Your task to perform on an android device: What's the weather going to be tomorrow? Image 0: 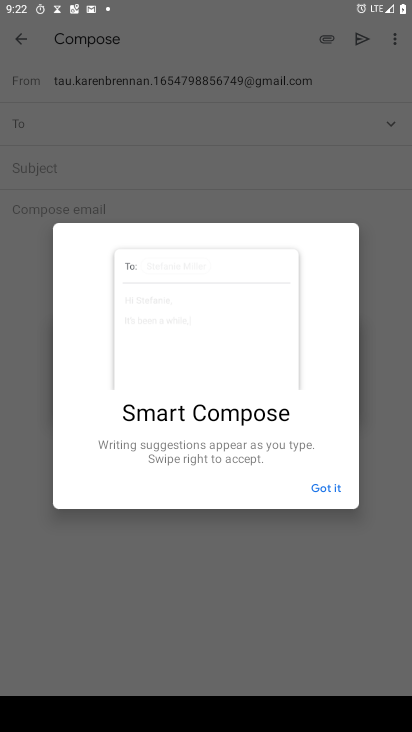
Step 0: press home button
Your task to perform on an android device: What's the weather going to be tomorrow? Image 1: 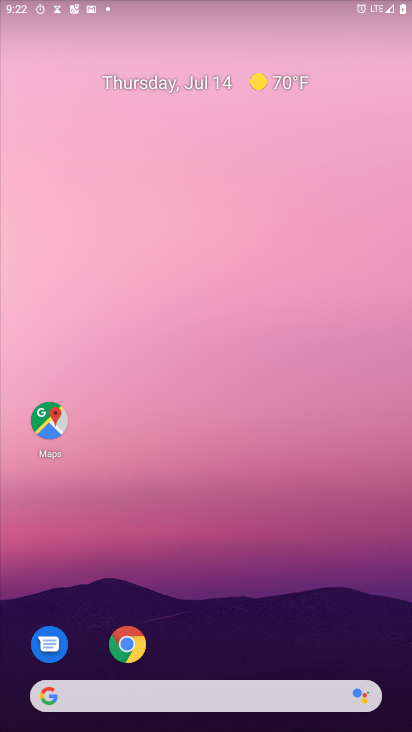
Step 1: click (144, 685)
Your task to perform on an android device: What's the weather going to be tomorrow? Image 2: 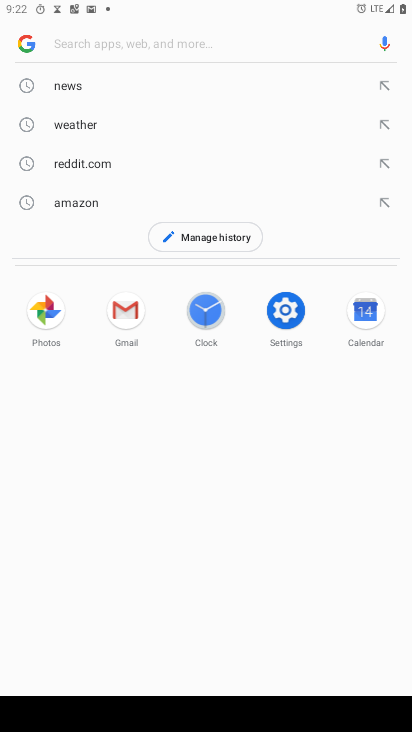
Step 2: click (82, 130)
Your task to perform on an android device: What's the weather going to be tomorrow? Image 3: 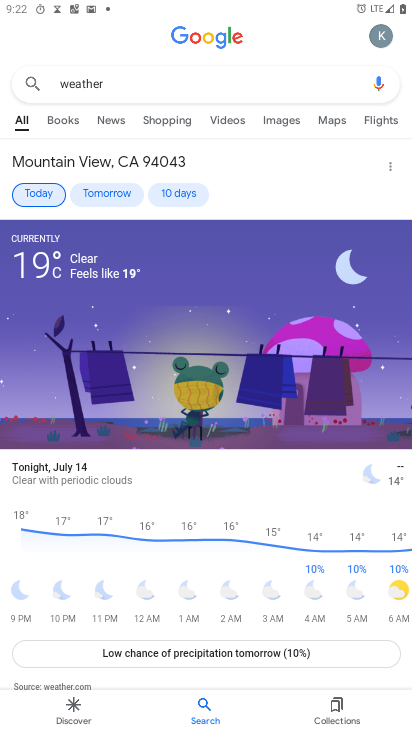
Step 3: click (127, 193)
Your task to perform on an android device: What's the weather going to be tomorrow? Image 4: 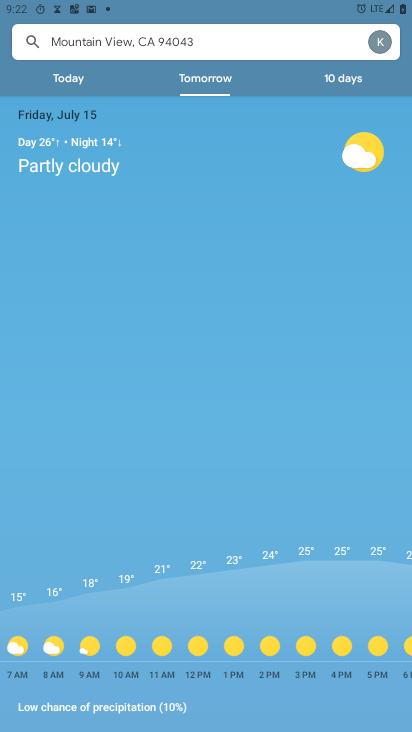
Step 4: task complete